Your task to perform on an android device: Open Wikipedia Image 0: 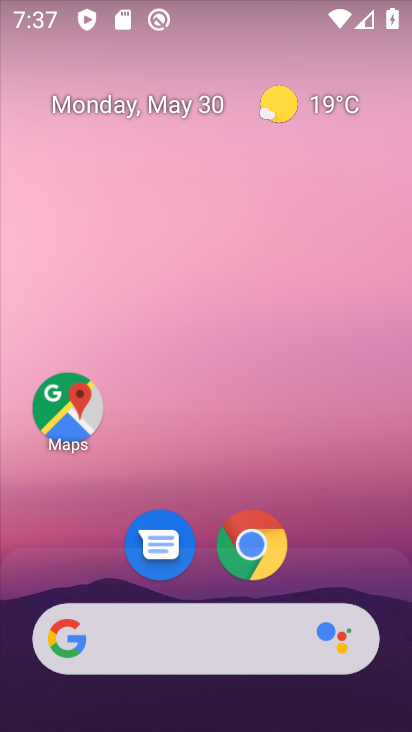
Step 0: click (261, 551)
Your task to perform on an android device: Open Wikipedia Image 1: 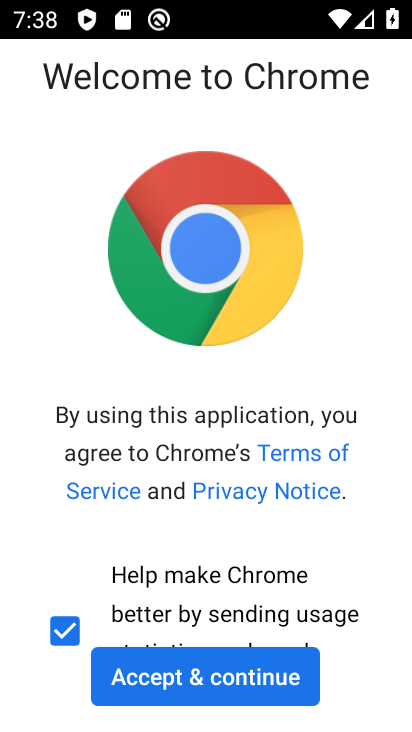
Step 1: click (212, 678)
Your task to perform on an android device: Open Wikipedia Image 2: 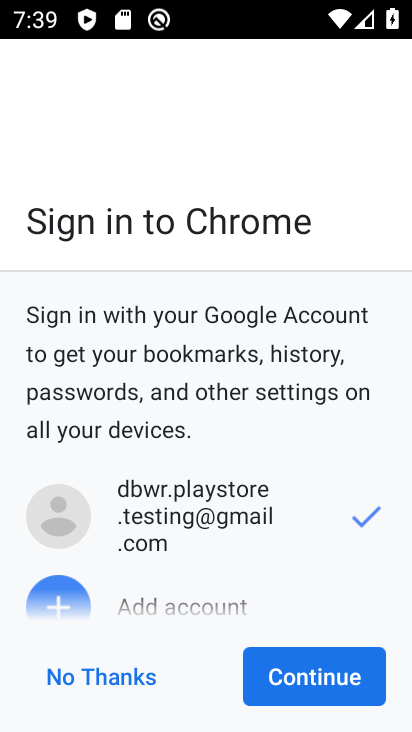
Step 2: click (311, 690)
Your task to perform on an android device: Open Wikipedia Image 3: 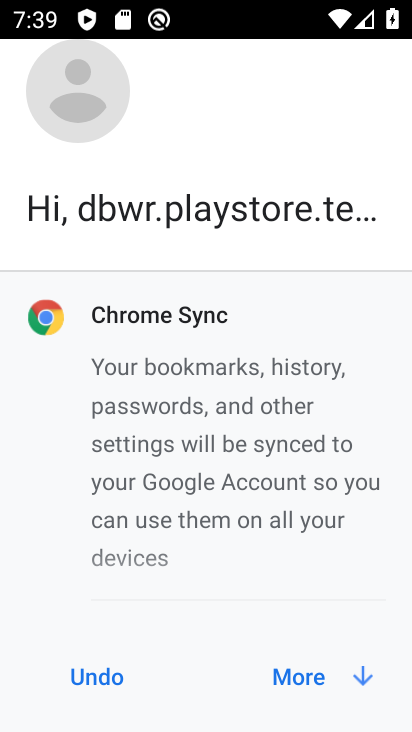
Step 3: click (311, 690)
Your task to perform on an android device: Open Wikipedia Image 4: 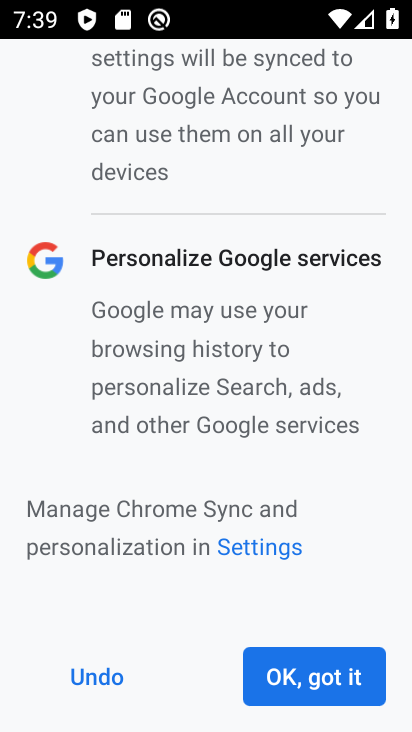
Step 4: click (311, 690)
Your task to perform on an android device: Open Wikipedia Image 5: 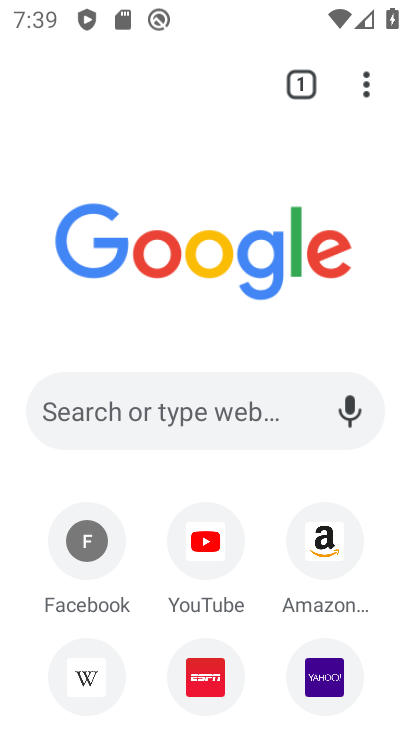
Step 5: click (79, 684)
Your task to perform on an android device: Open Wikipedia Image 6: 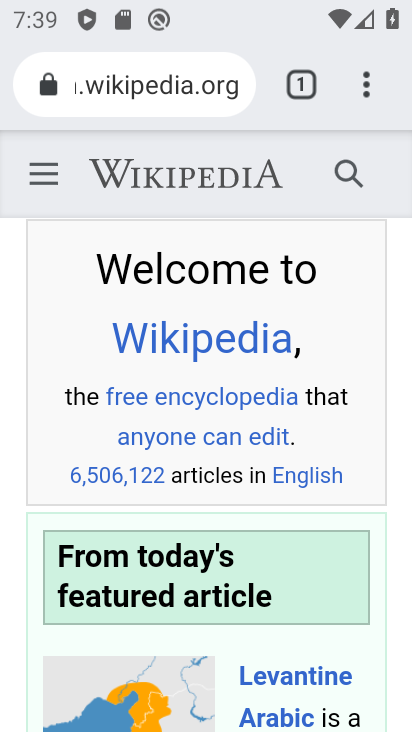
Step 6: task complete